Your task to perform on an android device: Open settings Image 0: 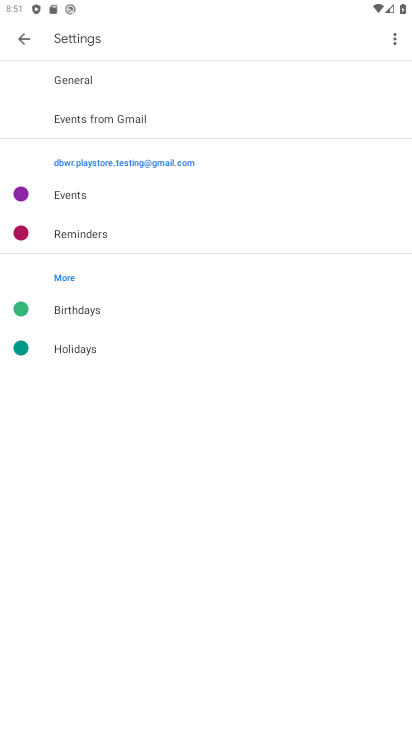
Step 0: press home button
Your task to perform on an android device: Open settings Image 1: 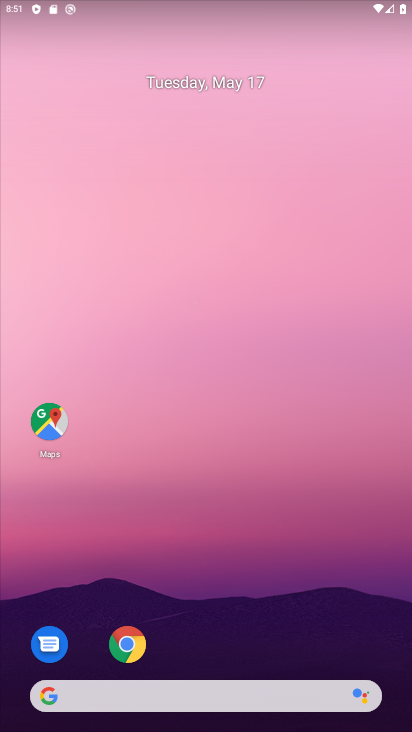
Step 1: drag from (214, 656) to (206, 79)
Your task to perform on an android device: Open settings Image 2: 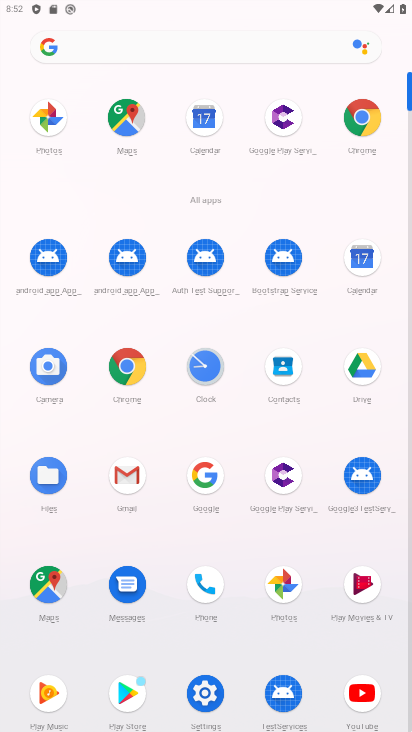
Step 2: click (203, 687)
Your task to perform on an android device: Open settings Image 3: 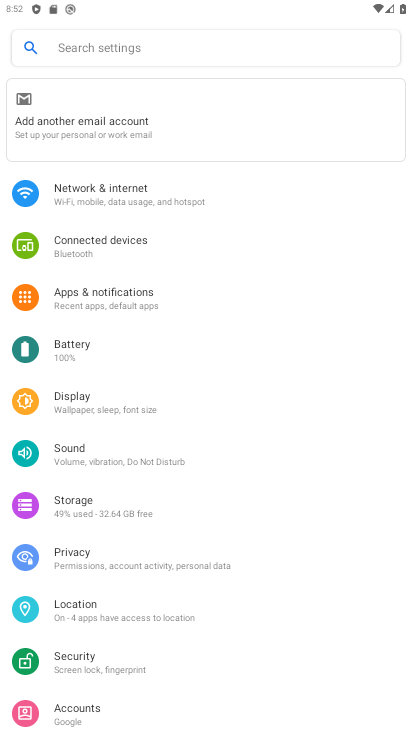
Step 3: task complete